Your task to perform on an android device: check google app version Image 0: 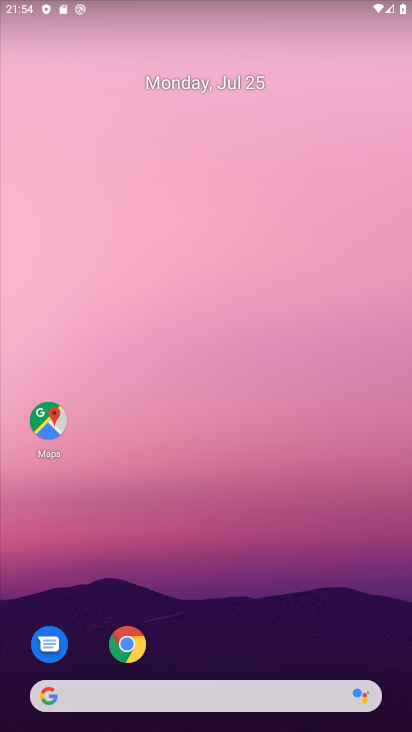
Step 0: drag from (211, 382) to (259, 63)
Your task to perform on an android device: check google app version Image 1: 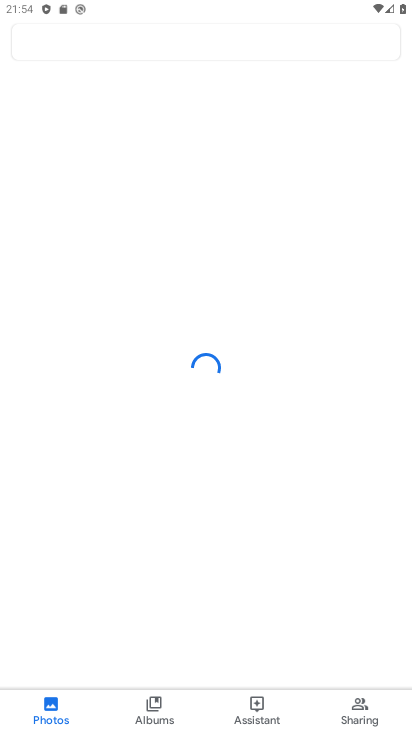
Step 1: press home button
Your task to perform on an android device: check google app version Image 2: 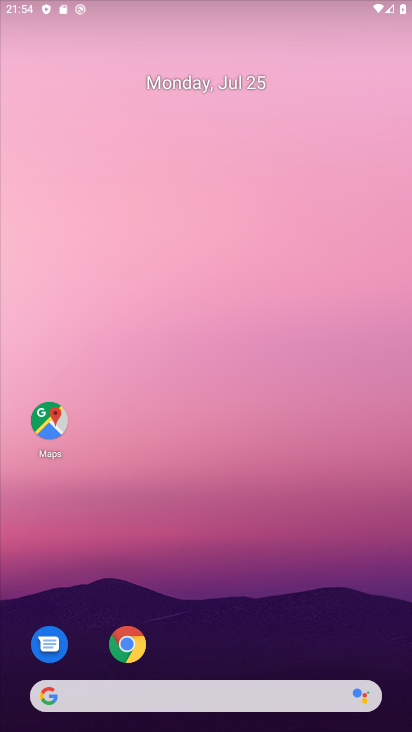
Step 2: drag from (281, 638) to (323, 174)
Your task to perform on an android device: check google app version Image 3: 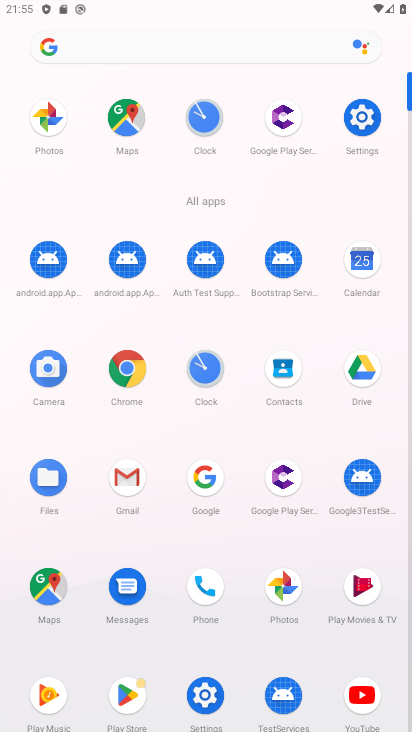
Step 3: click (206, 471)
Your task to perform on an android device: check google app version Image 4: 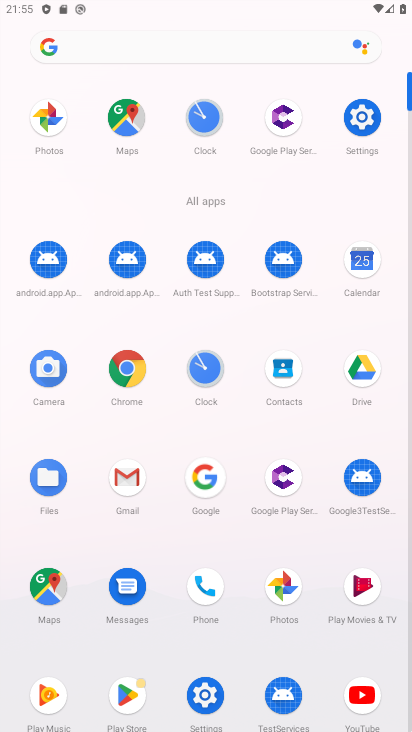
Step 4: click (215, 476)
Your task to perform on an android device: check google app version Image 5: 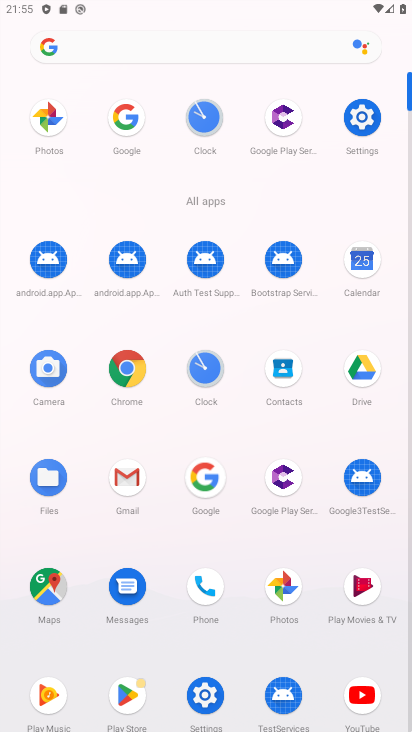
Step 5: click (207, 470)
Your task to perform on an android device: check google app version Image 6: 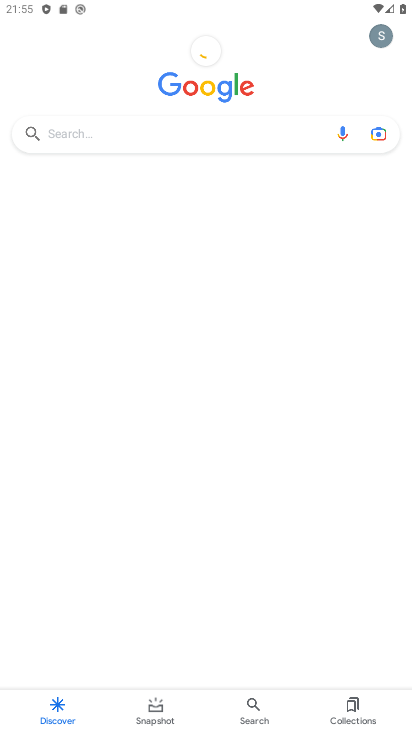
Step 6: press home button
Your task to perform on an android device: check google app version Image 7: 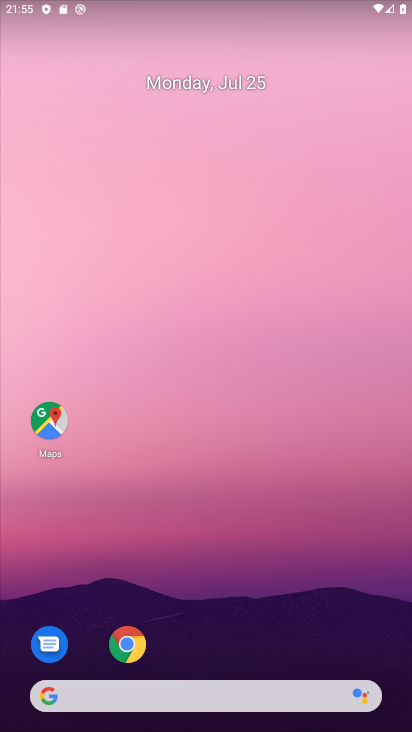
Step 7: drag from (203, 610) to (151, 28)
Your task to perform on an android device: check google app version Image 8: 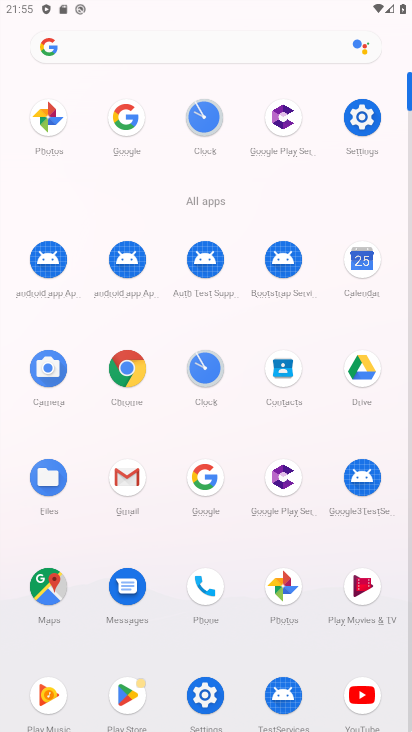
Step 8: click (205, 468)
Your task to perform on an android device: check google app version Image 9: 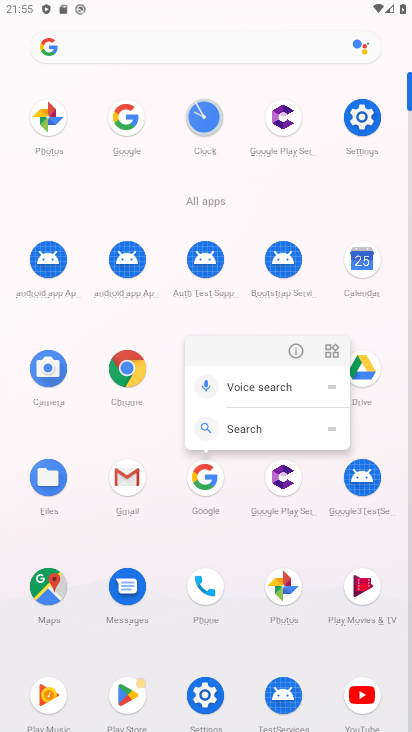
Step 9: click (293, 345)
Your task to perform on an android device: check google app version Image 10: 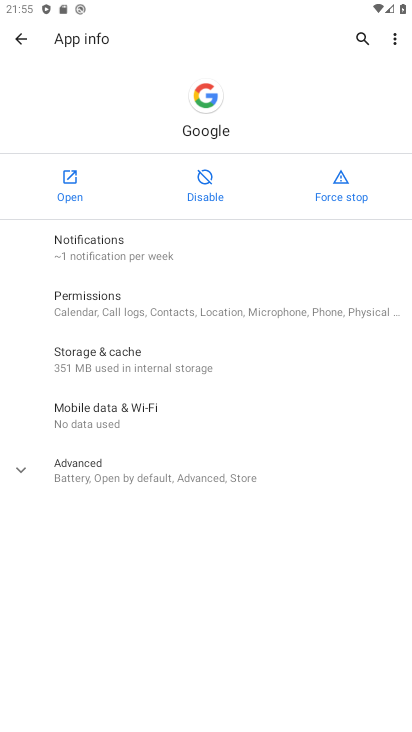
Step 10: click (217, 471)
Your task to perform on an android device: check google app version Image 11: 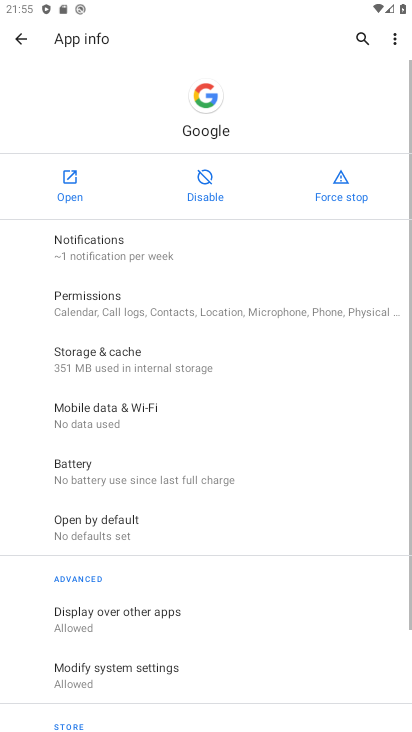
Step 11: task complete